Your task to perform on an android device: Open Google Maps Image 0: 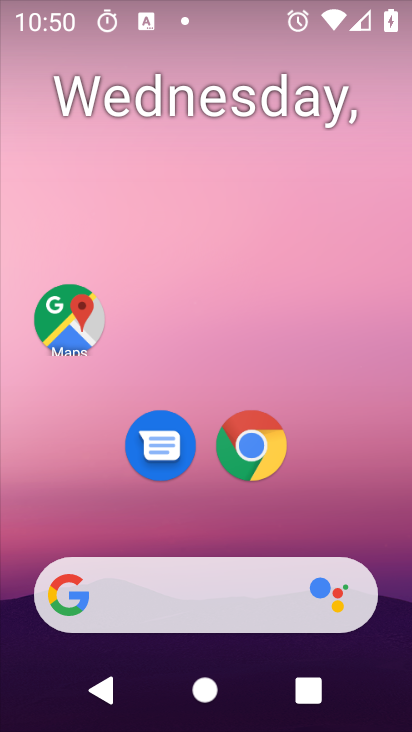
Step 0: drag from (356, 505) to (335, 140)
Your task to perform on an android device: Open Google Maps Image 1: 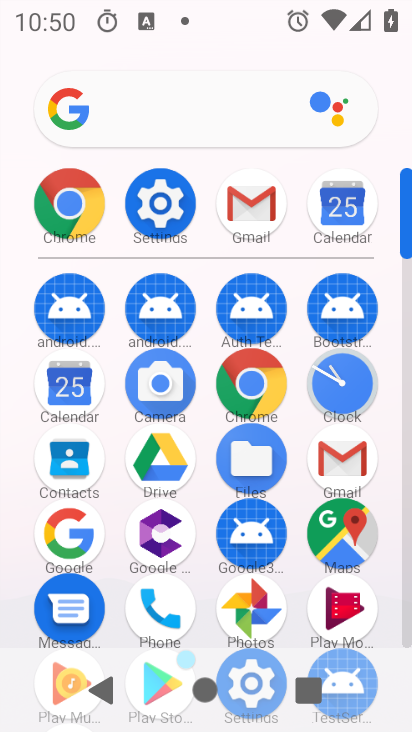
Step 1: click (367, 542)
Your task to perform on an android device: Open Google Maps Image 2: 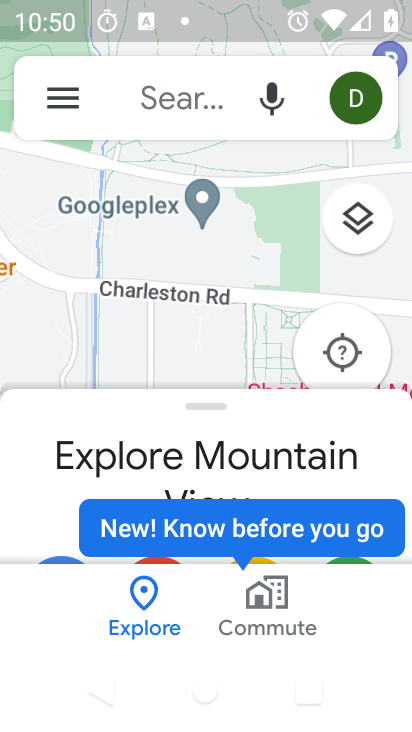
Step 2: task complete